Your task to perform on an android device: Clear the cart on walmart. Image 0: 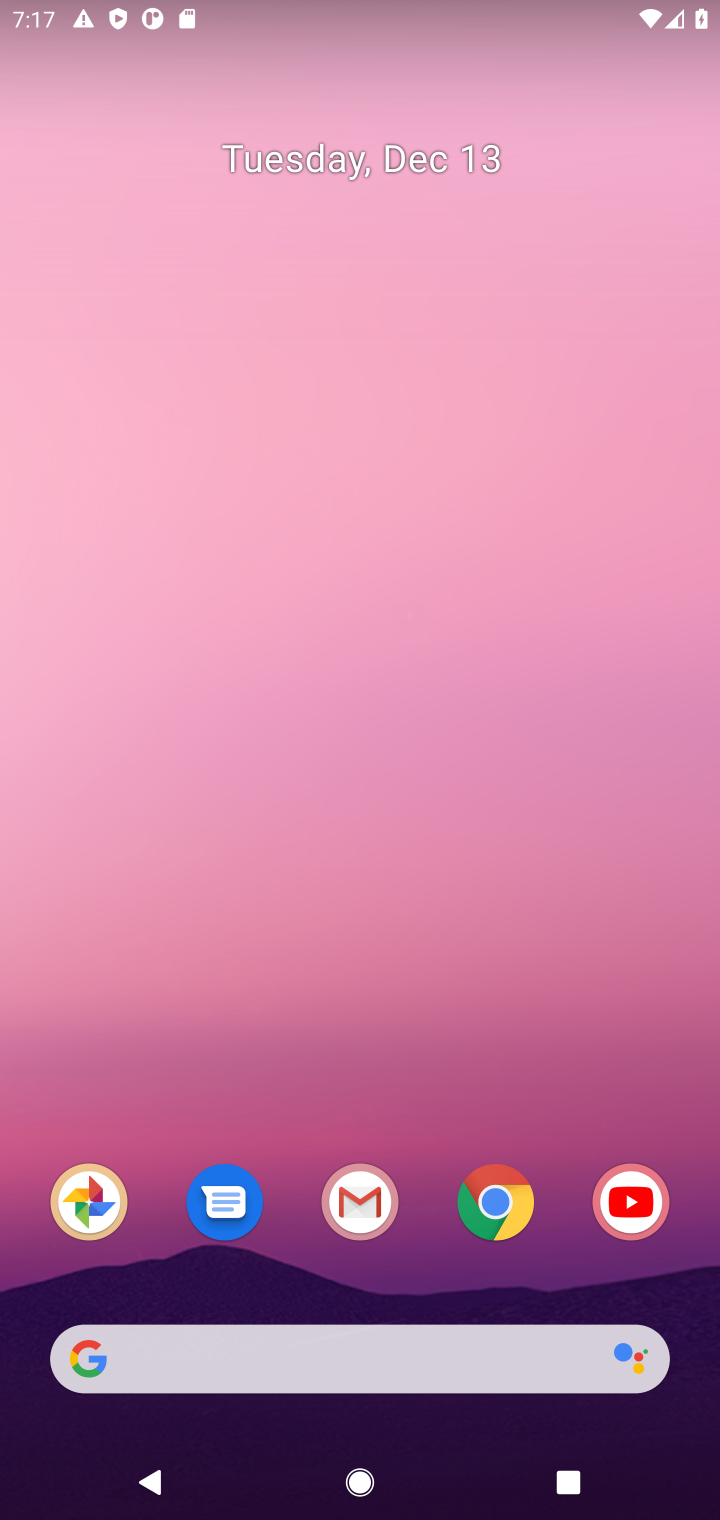
Step 0: click (496, 1208)
Your task to perform on an android device: Clear the cart on walmart. Image 1: 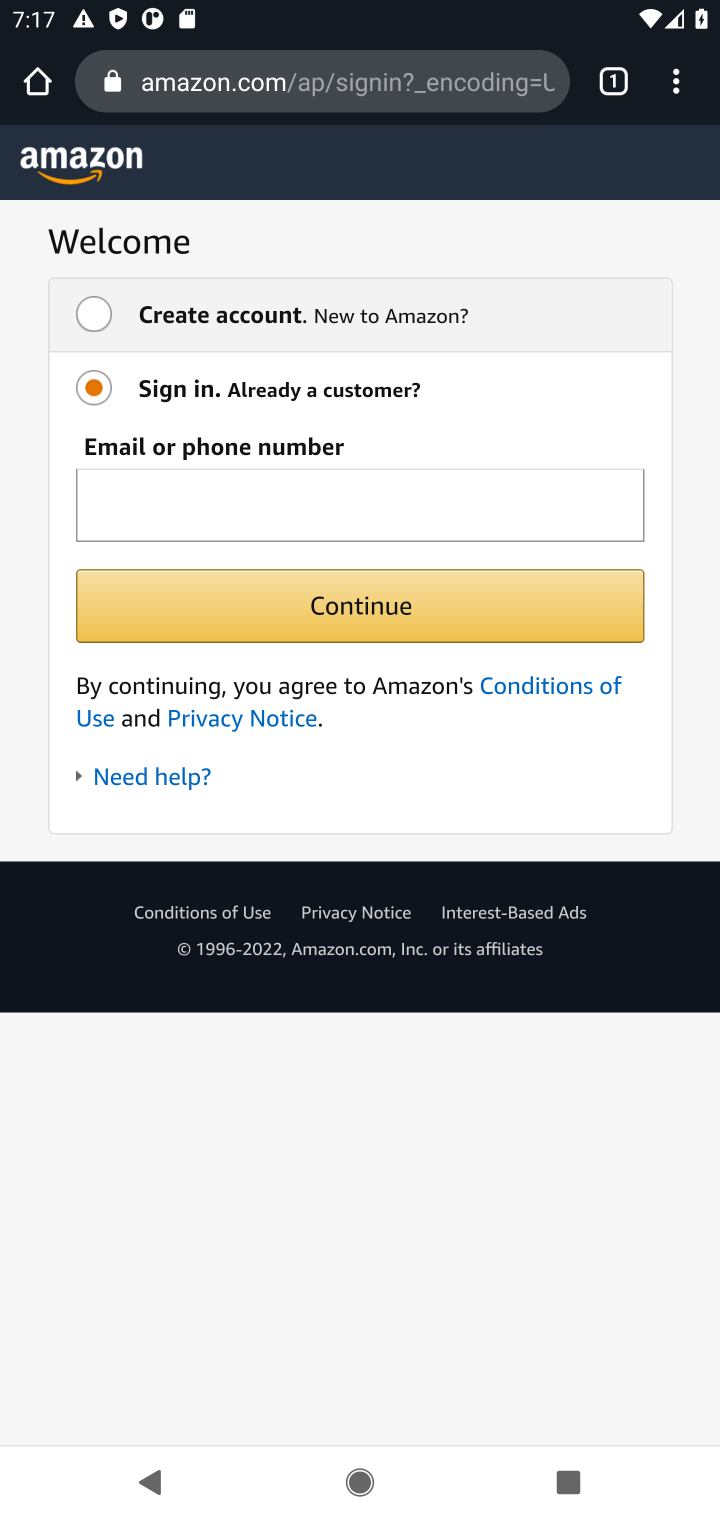
Step 1: click (287, 93)
Your task to perform on an android device: Clear the cart on walmart. Image 2: 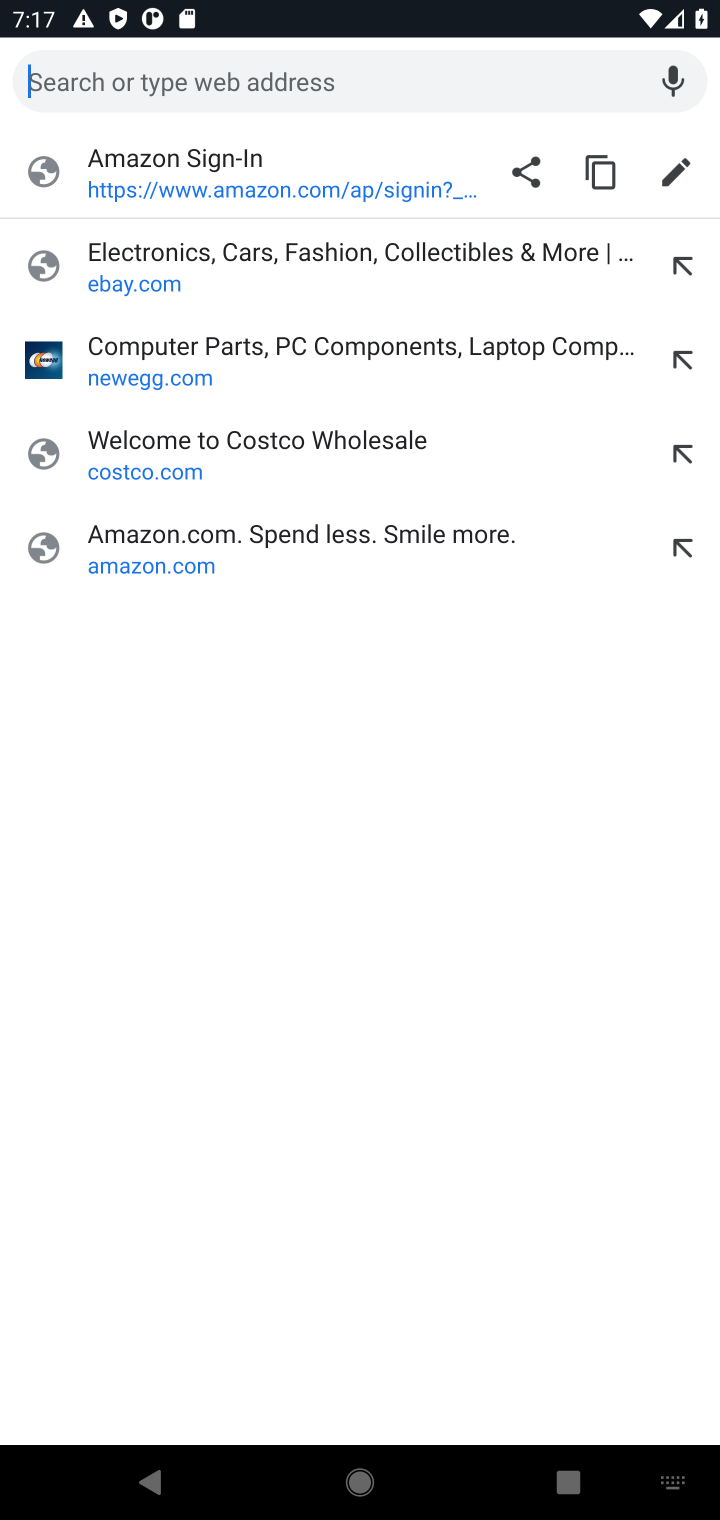
Step 2: type "walmart.com"
Your task to perform on an android device: Clear the cart on walmart. Image 3: 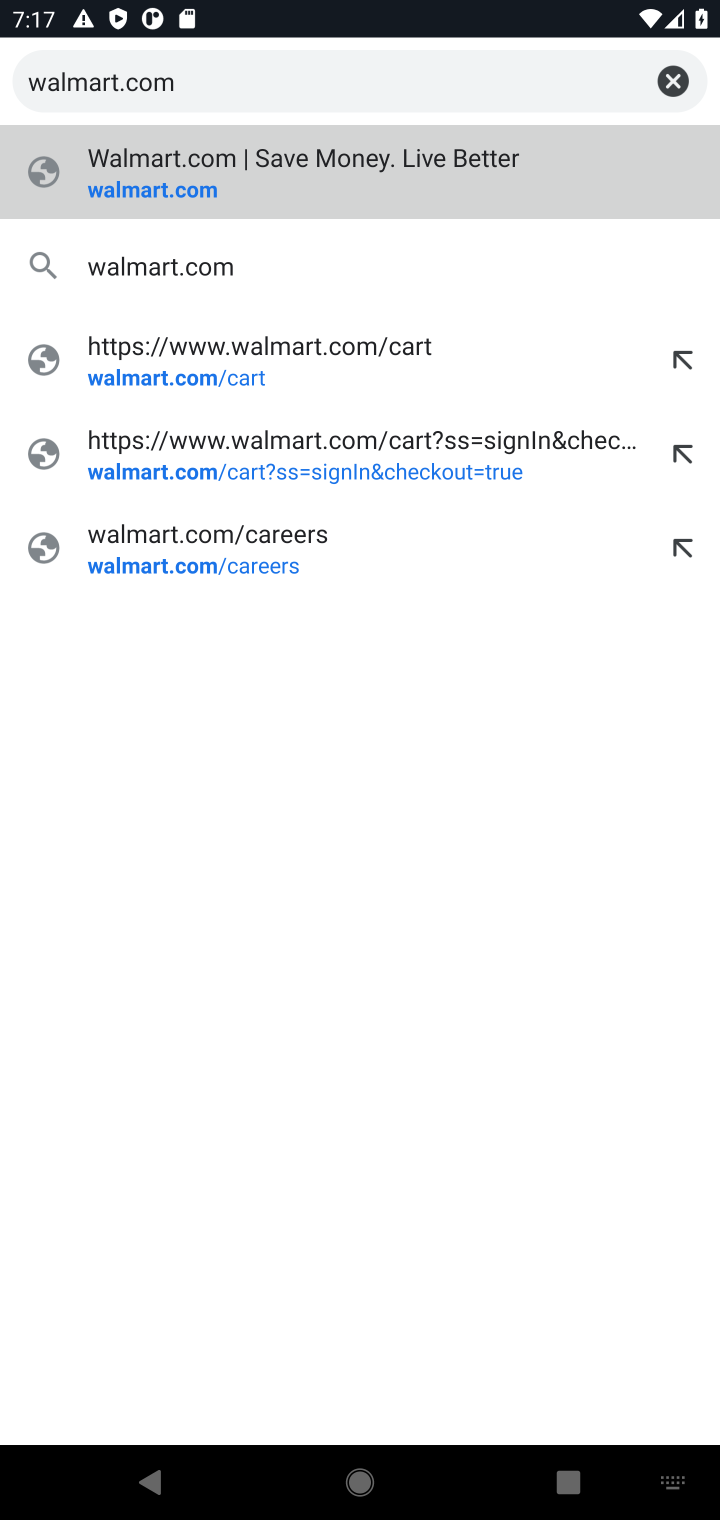
Step 3: click (141, 183)
Your task to perform on an android device: Clear the cart on walmart. Image 4: 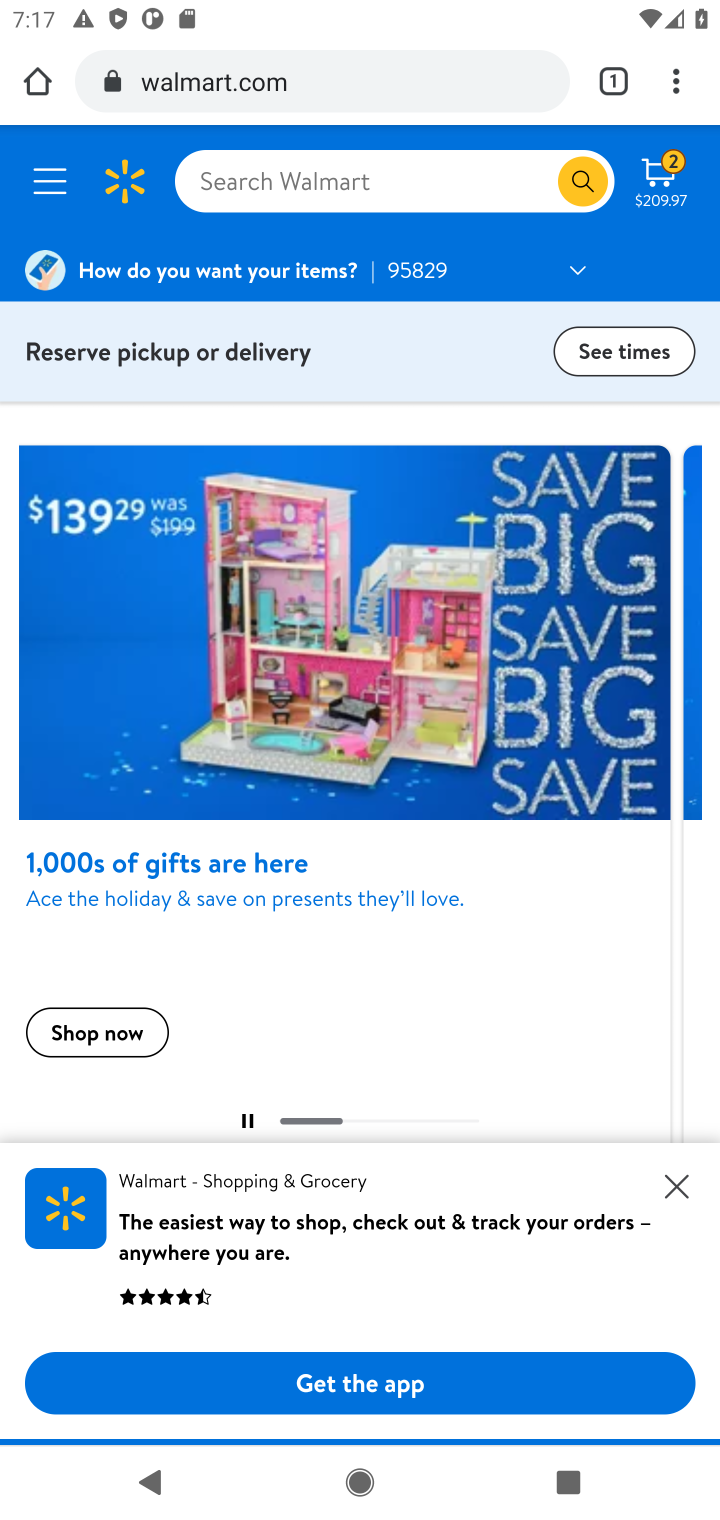
Step 4: click (670, 193)
Your task to perform on an android device: Clear the cart on walmart. Image 5: 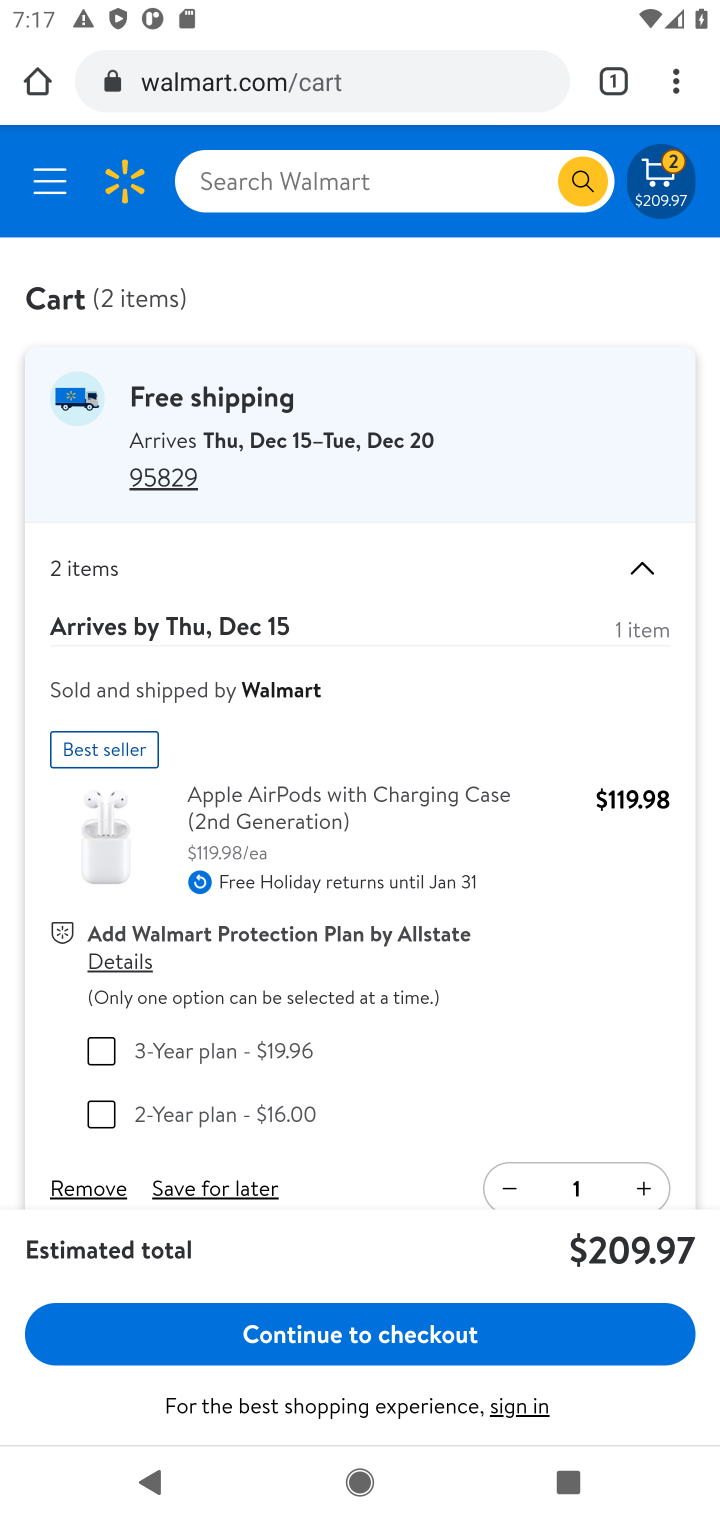
Step 5: click (98, 1195)
Your task to perform on an android device: Clear the cart on walmart. Image 6: 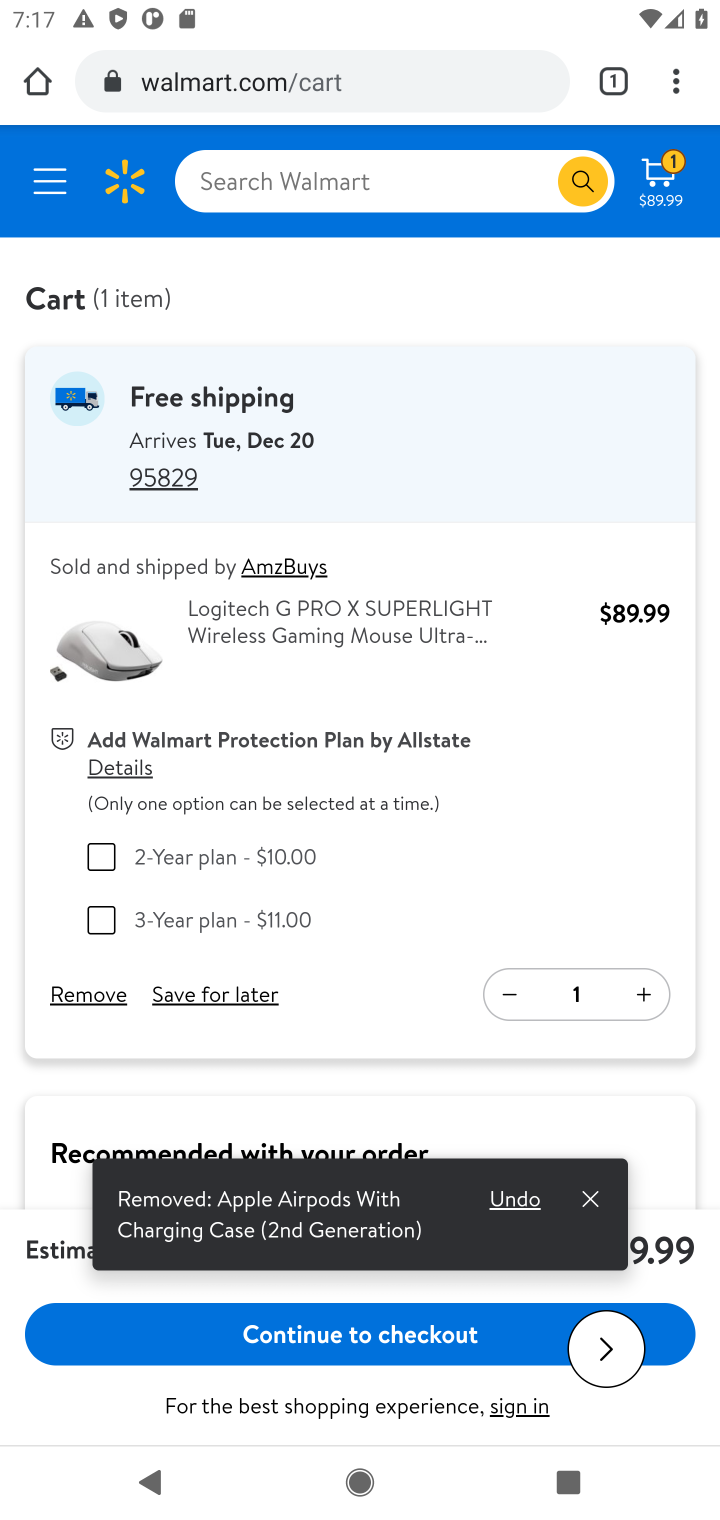
Step 6: click (60, 997)
Your task to perform on an android device: Clear the cart on walmart. Image 7: 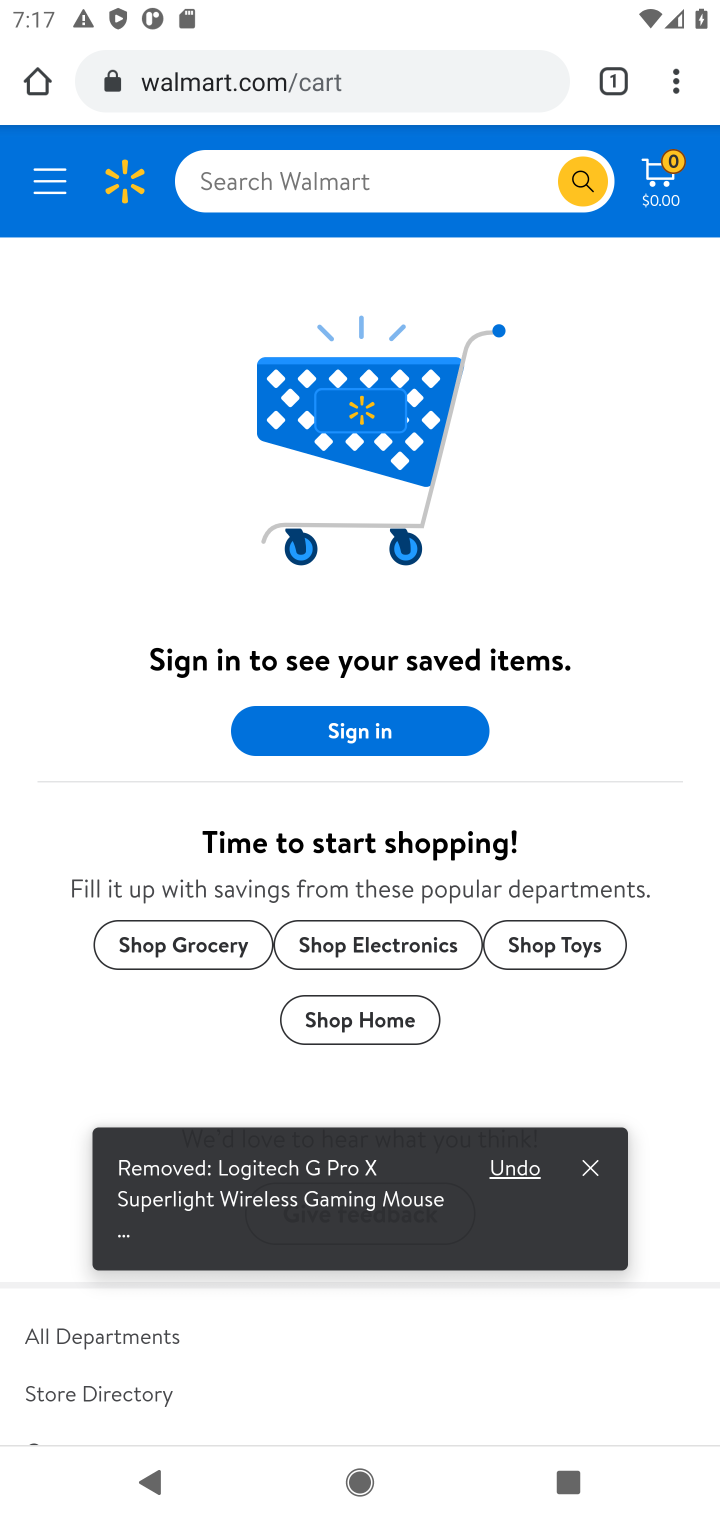
Step 7: task complete